Your task to perform on an android device: show emergency info Image 0: 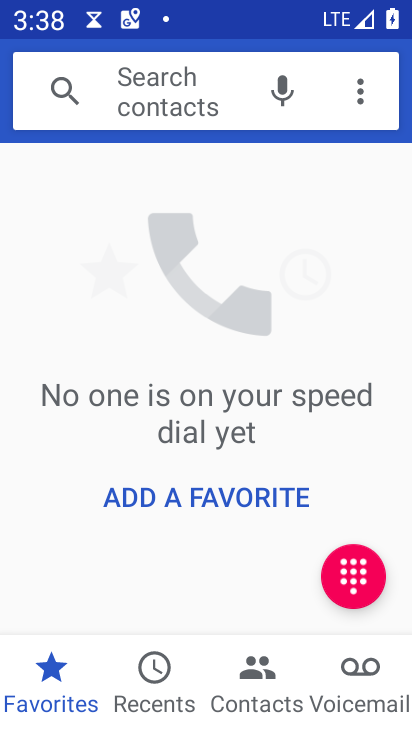
Step 0: press home button
Your task to perform on an android device: show emergency info Image 1: 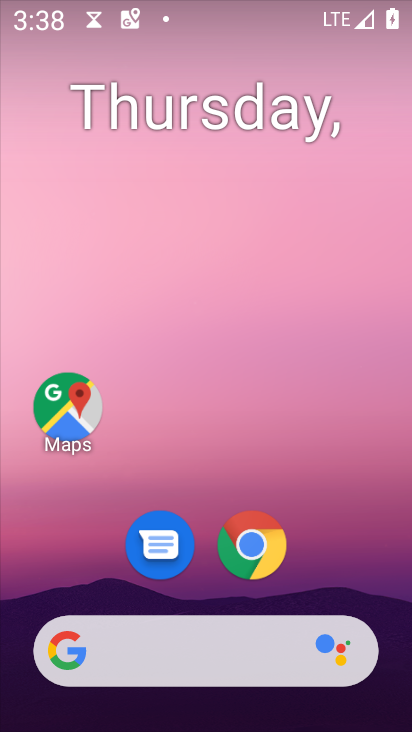
Step 1: drag from (373, 554) to (411, 73)
Your task to perform on an android device: show emergency info Image 2: 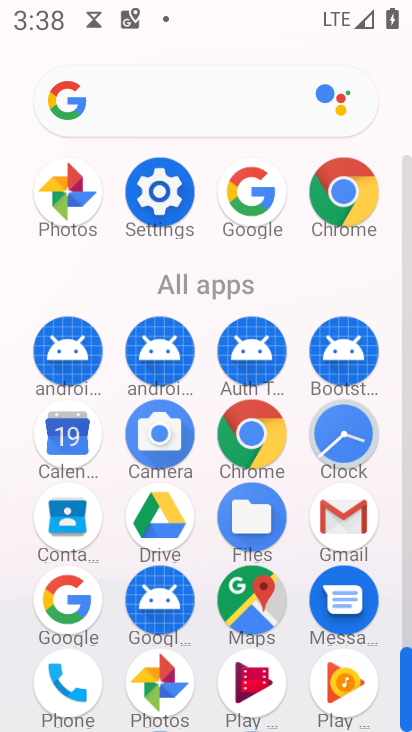
Step 2: click (181, 200)
Your task to perform on an android device: show emergency info Image 3: 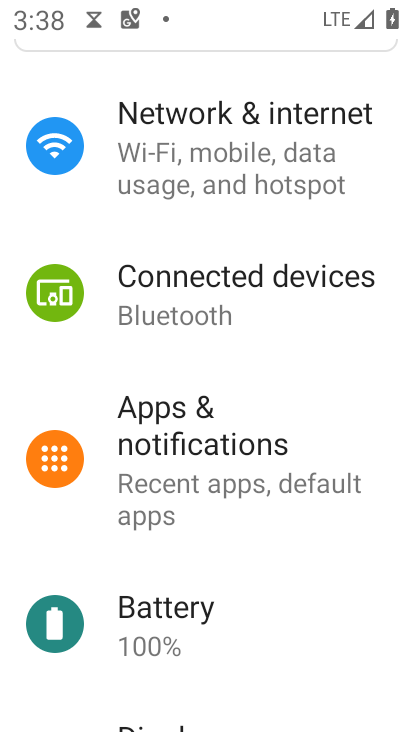
Step 3: drag from (193, 630) to (282, 96)
Your task to perform on an android device: show emergency info Image 4: 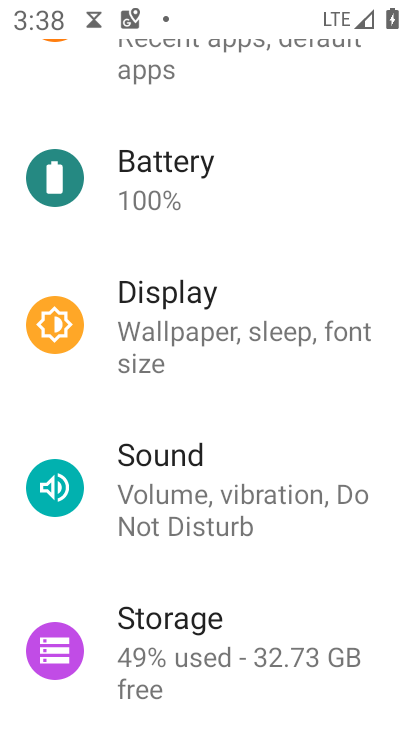
Step 4: drag from (188, 641) to (330, 123)
Your task to perform on an android device: show emergency info Image 5: 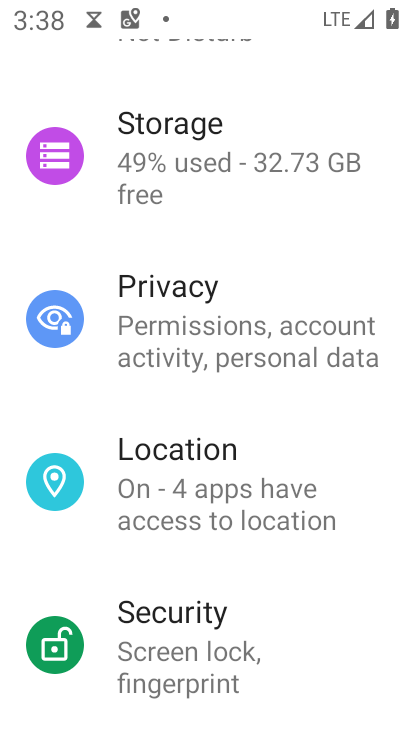
Step 5: drag from (156, 612) to (258, 157)
Your task to perform on an android device: show emergency info Image 6: 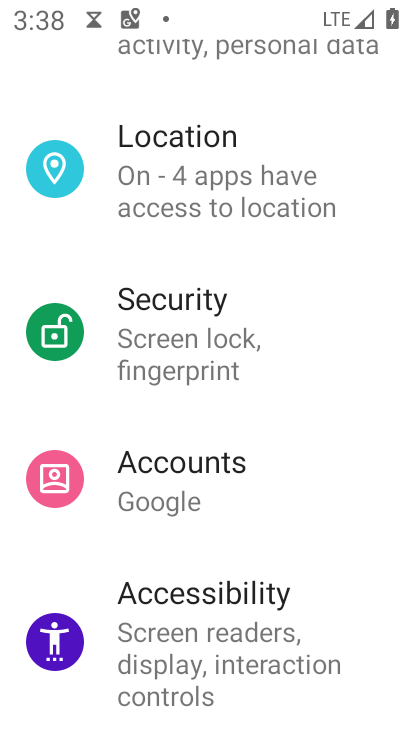
Step 6: drag from (242, 640) to (286, 154)
Your task to perform on an android device: show emergency info Image 7: 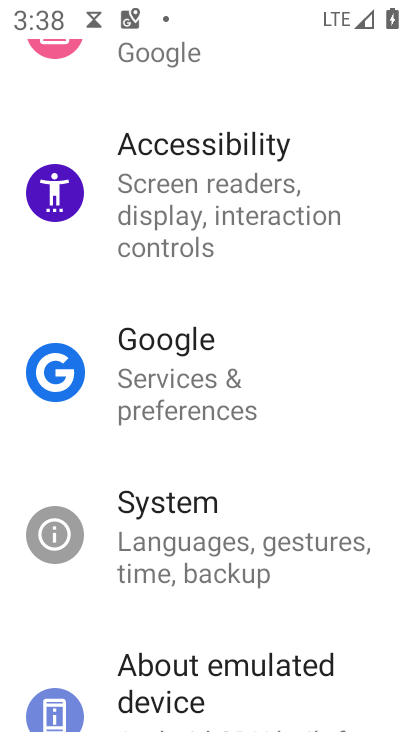
Step 7: drag from (209, 637) to (286, 155)
Your task to perform on an android device: show emergency info Image 8: 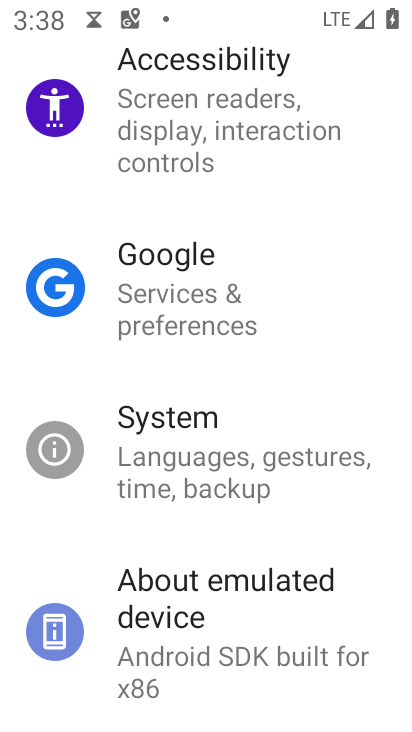
Step 8: drag from (236, 621) to (307, 189)
Your task to perform on an android device: show emergency info Image 9: 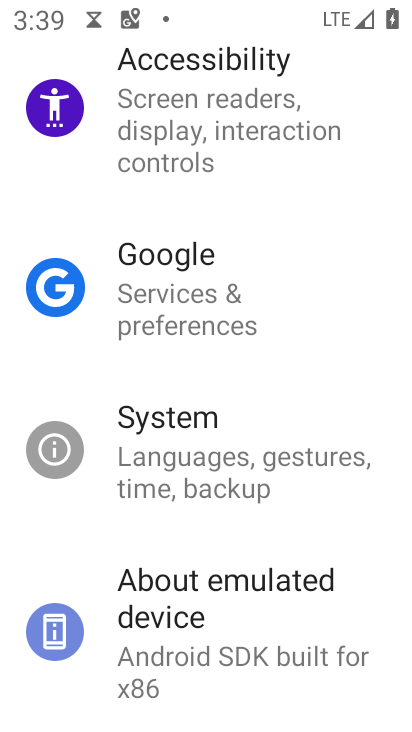
Step 9: drag from (254, 585) to (274, 116)
Your task to perform on an android device: show emergency info Image 10: 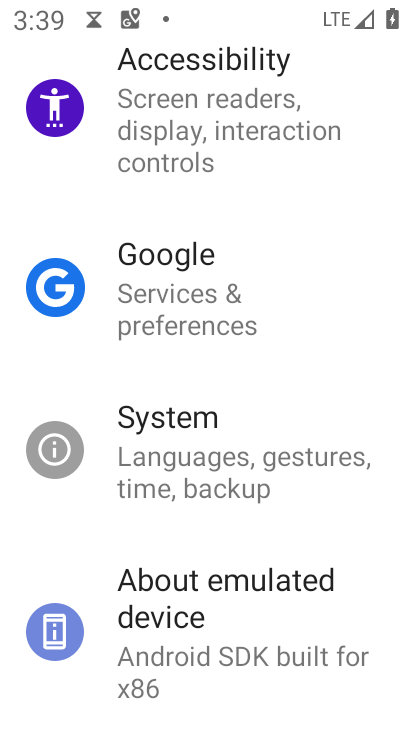
Step 10: click (210, 611)
Your task to perform on an android device: show emergency info Image 11: 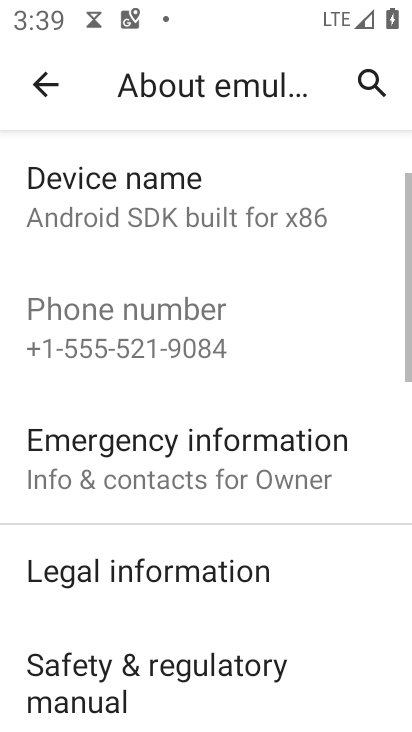
Step 11: drag from (204, 562) to (195, 330)
Your task to perform on an android device: show emergency info Image 12: 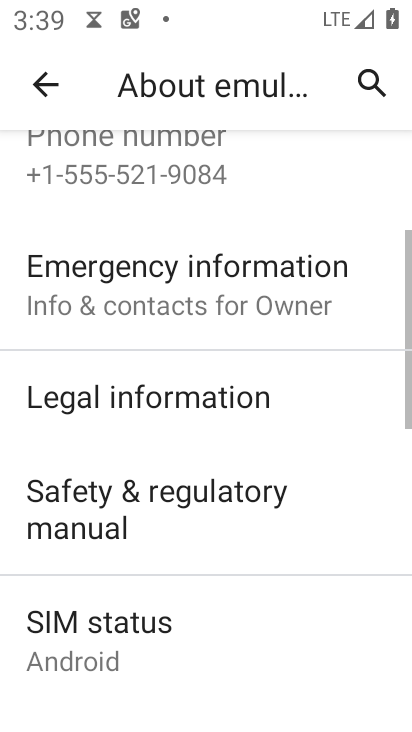
Step 12: click (170, 461)
Your task to perform on an android device: show emergency info Image 13: 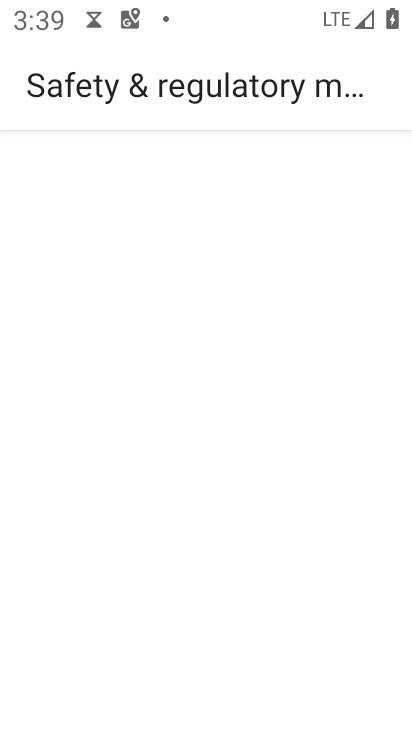
Step 13: press back button
Your task to perform on an android device: show emergency info Image 14: 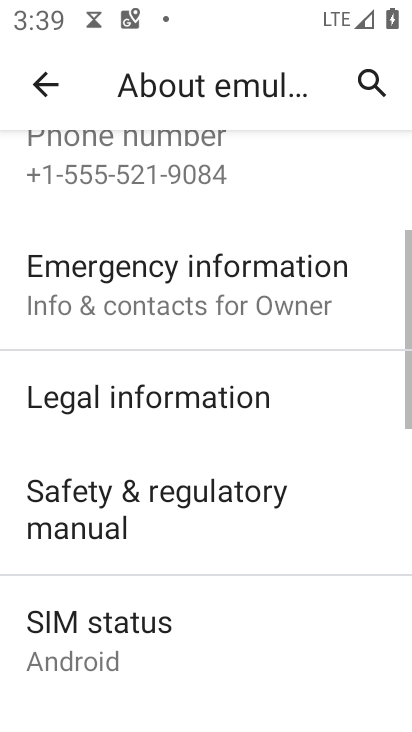
Step 14: click (238, 291)
Your task to perform on an android device: show emergency info Image 15: 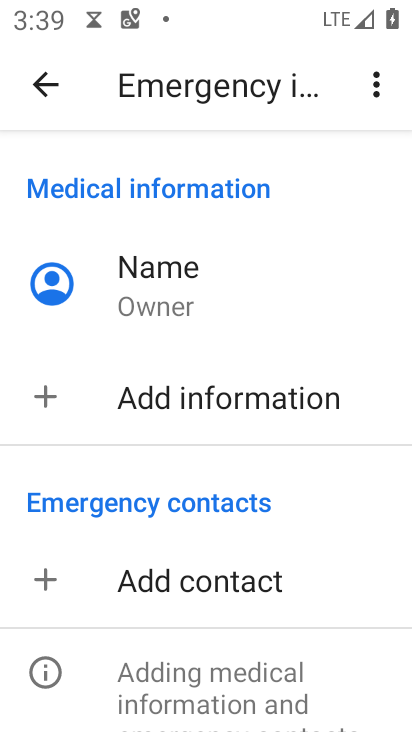
Step 15: task complete